Your task to perform on an android device: Is it going to rain tomorrow? Image 0: 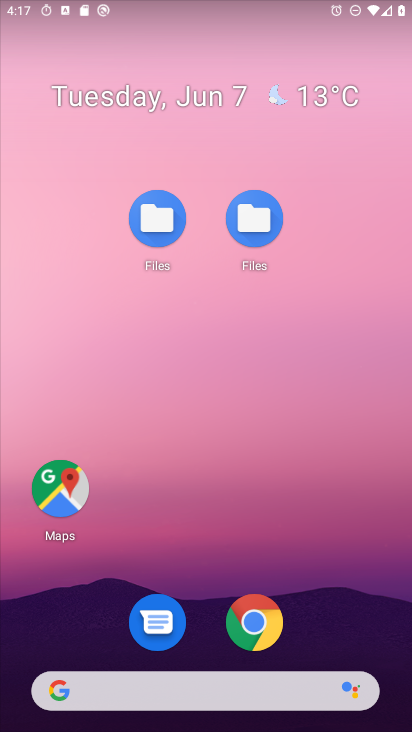
Step 0: click (174, 692)
Your task to perform on an android device: Is it going to rain tomorrow? Image 1: 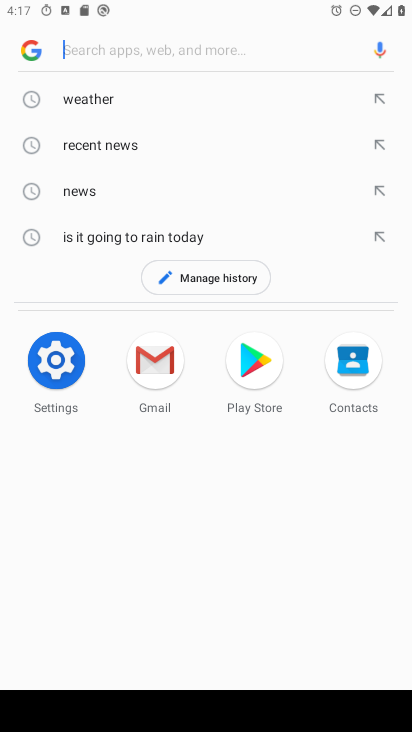
Step 1: click (132, 87)
Your task to perform on an android device: Is it going to rain tomorrow? Image 2: 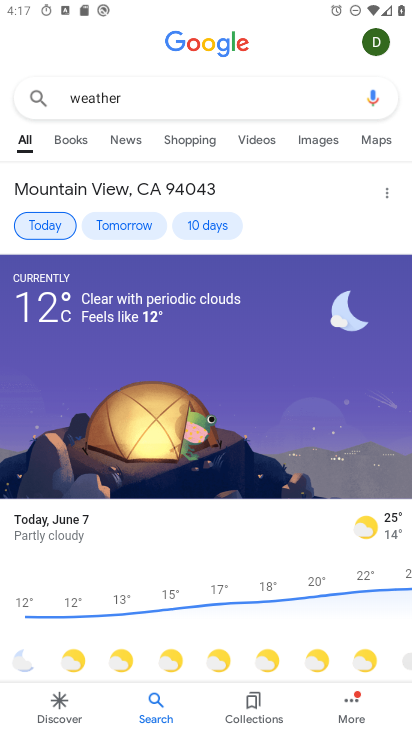
Step 2: click (109, 226)
Your task to perform on an android device: Is it going to rain tomorrow? Image 3: 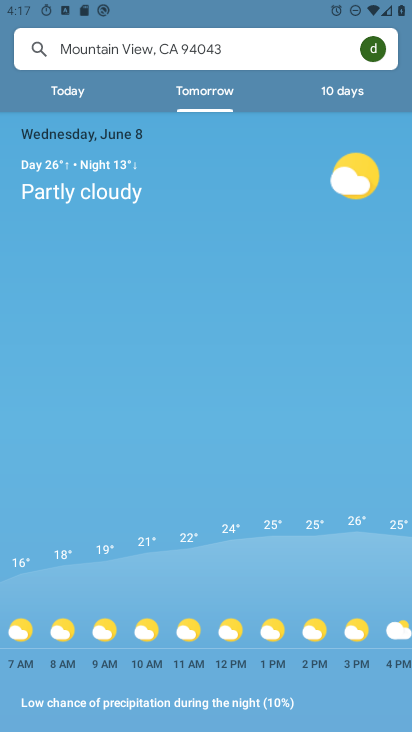
Step 3: task complete